Your task to perform on an android device: make emails show in primary in the gmail app Image 0: 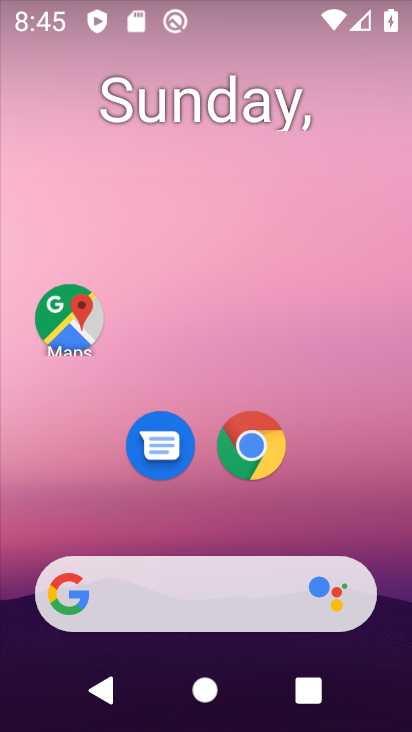
Step 0: drag from (359, 519) to (359, 10)
Your task to perform on an android device: make emails show in primary in the gmail app Image 1: 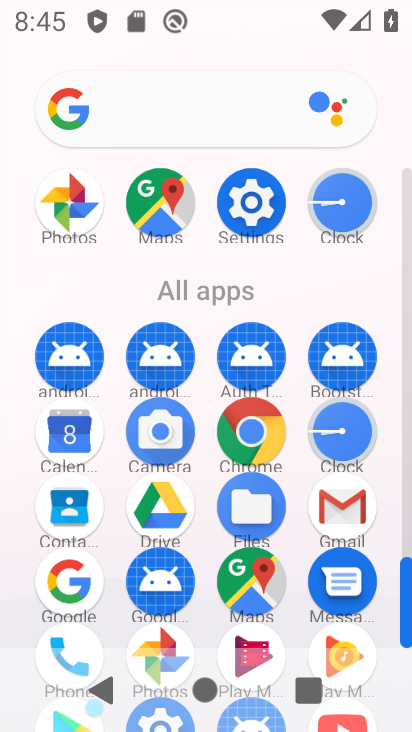
Step 1: click (334, 506)
Your task to perform on an android device: make emails show in primary in the gmail app Image 2: 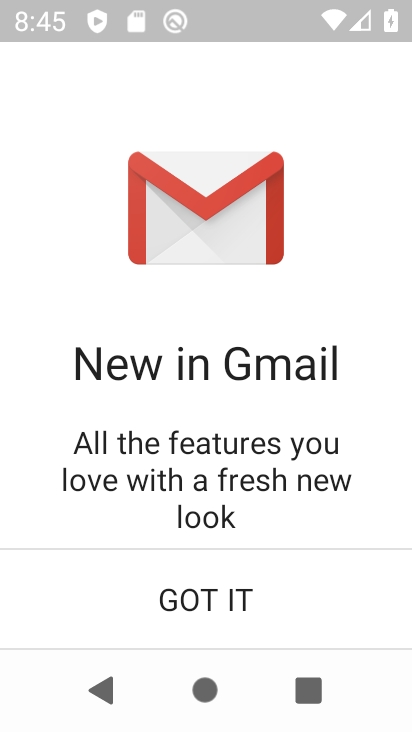
Step 2: click (215, 593)
Your task to perform on an android device: make emails show in primary in the gmail app Image 3: 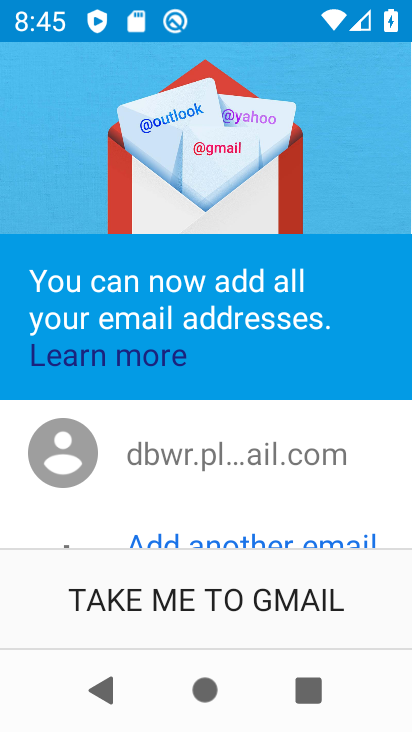
Step 3: click (187, 596)
Your task to perform on an android device: make emails show in primary in the gmail app Image 4: 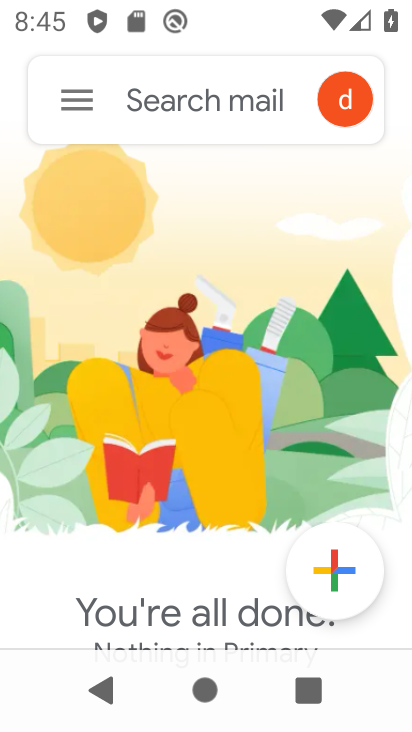
Step 4: click (79, 98)
Your task to perform on an android device: make emails show in primary in the gmail app Image 5: 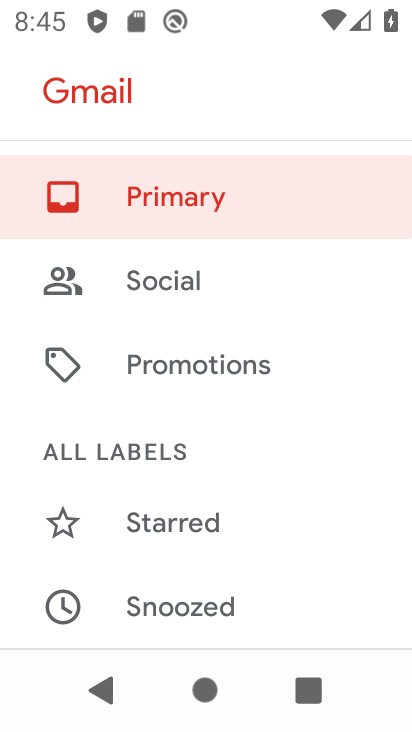
Step 5: click (156, 207)
Your task to perform on an android device: make emails show in primary in the gmail app Image 6: 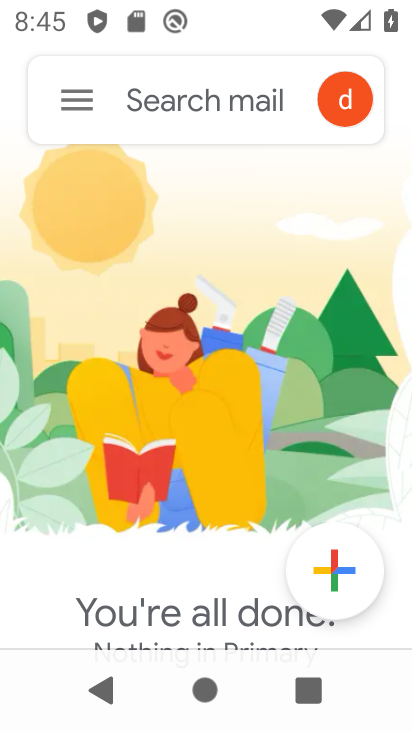
Step 6: task complete